Your task to perform on an android device: open app "eBay: The shopping marketplace" Image 0: 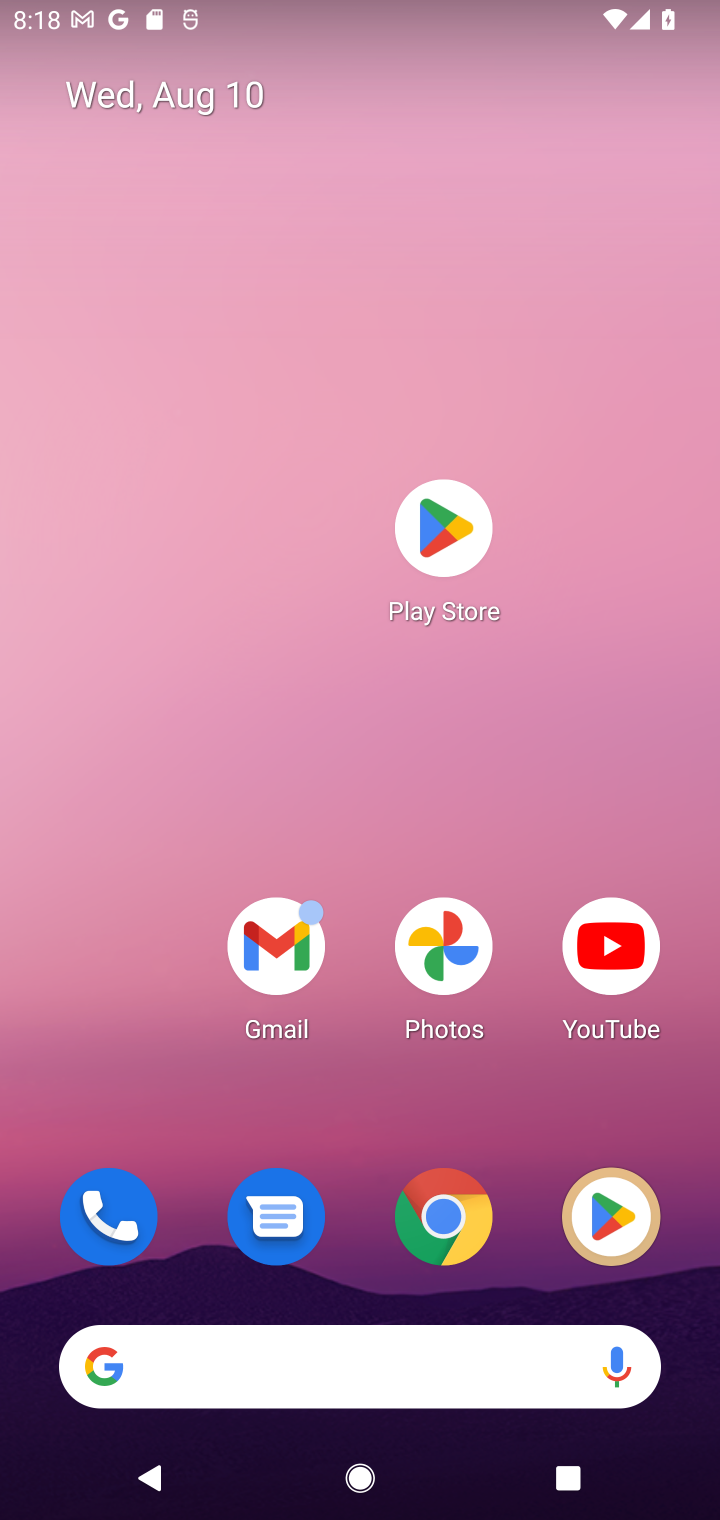
Step 0: press home button
Your task to perform on an android device: open app "eBay: The shopping marketplace" Image 1: 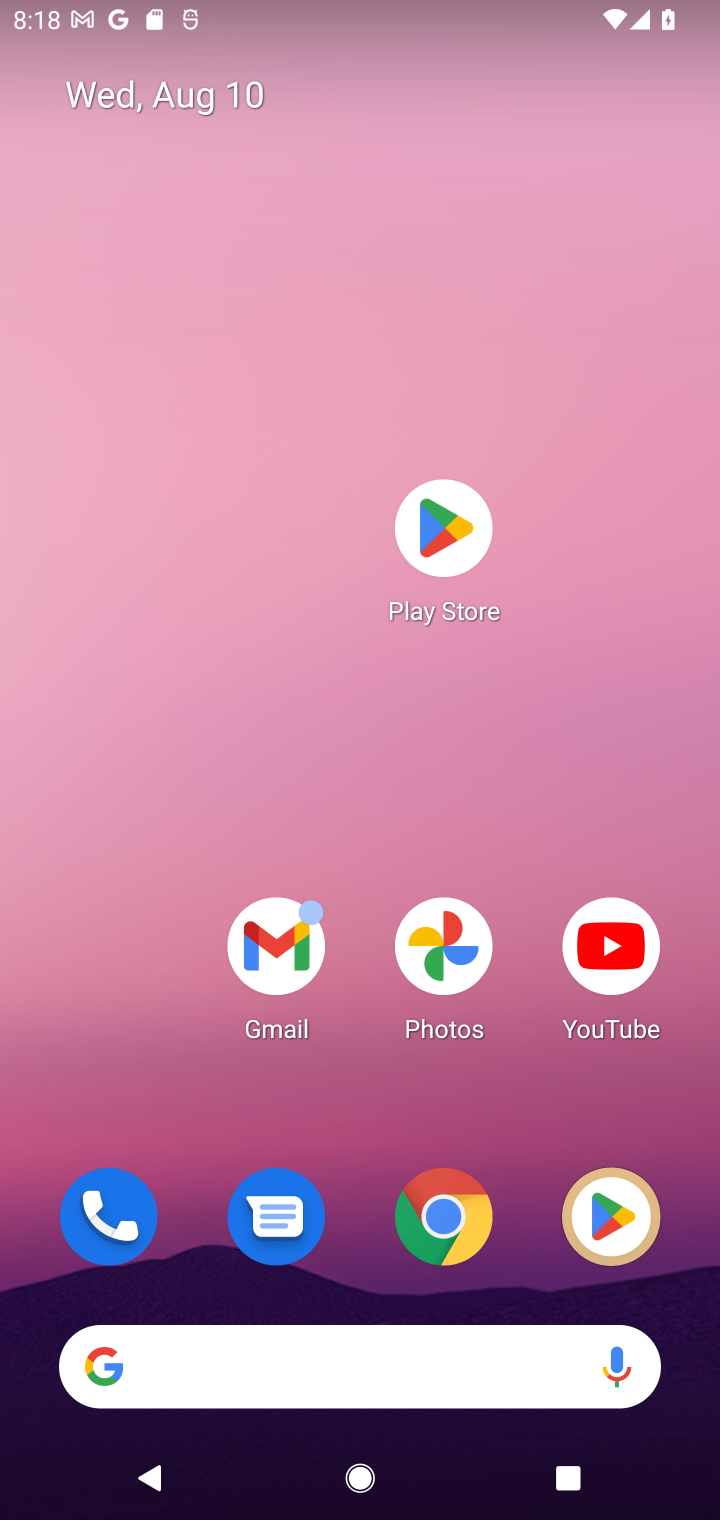
Step 1: click (451, 515)
Your task to perform on an android device: open app "eBay: The shopping marketplace" Image 2: 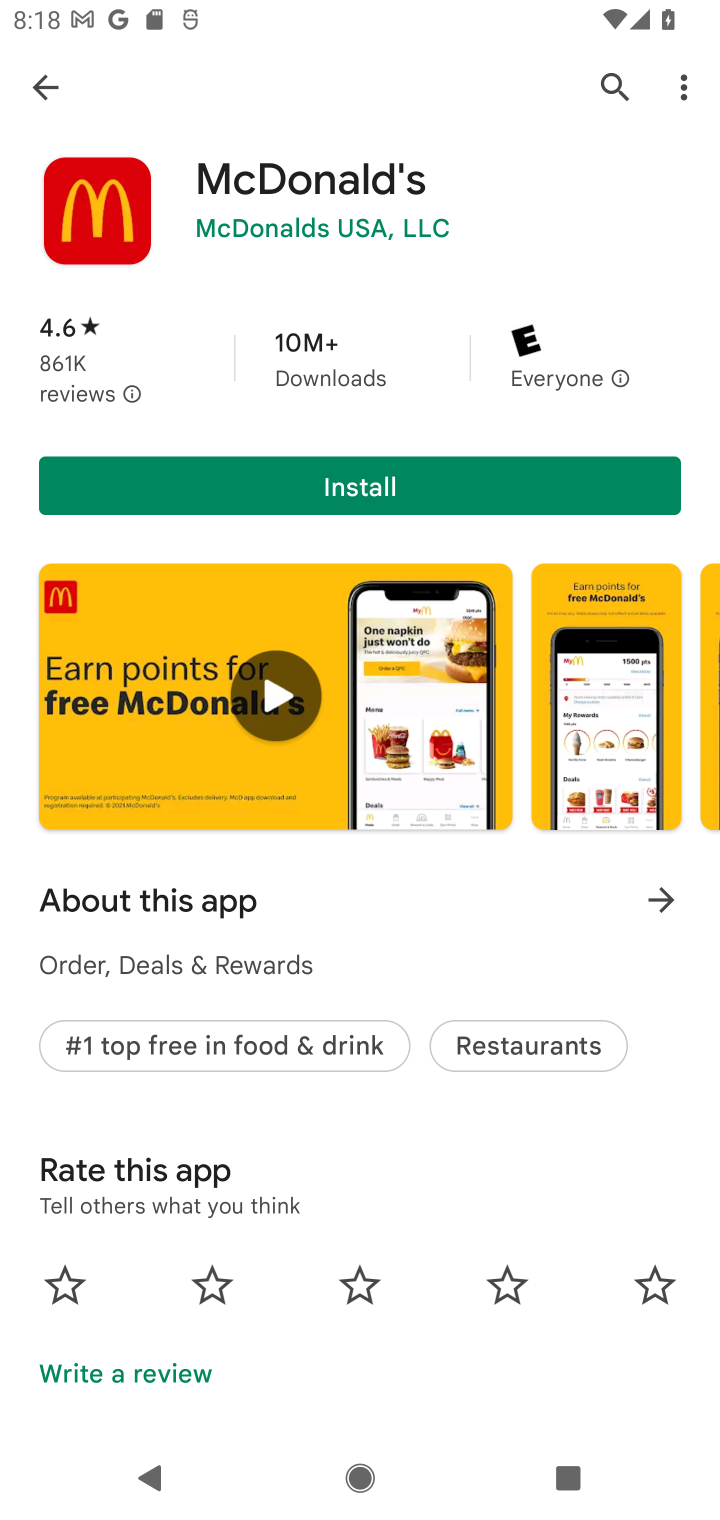
Step 2: click (612, 72)
Your task to perform on an android device: open app "eBay: The shopping marketplace" Image 3: 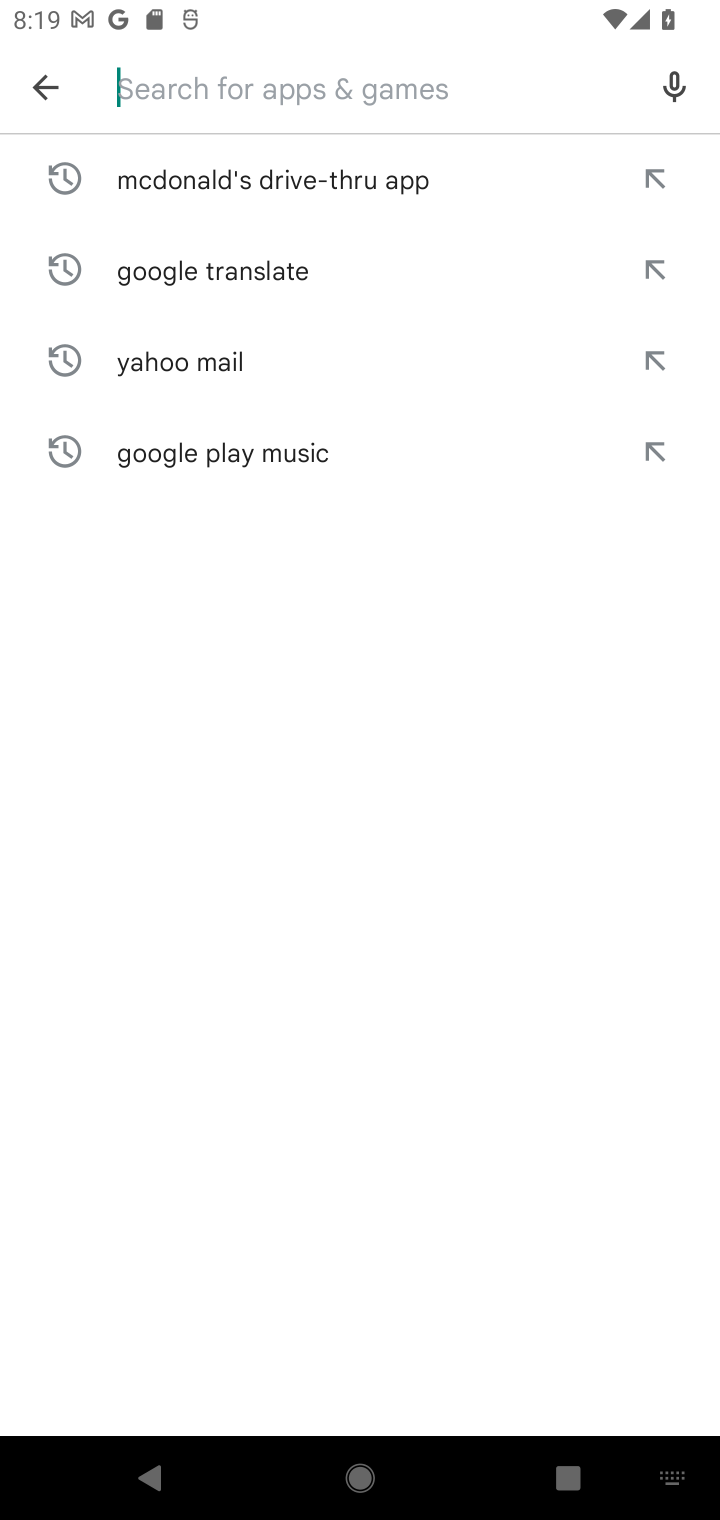
Step 3: type "eBay: The shopping marketplace"
Your task to perform on an android device: open app "eBay: The shopping marketplace" Image 4: 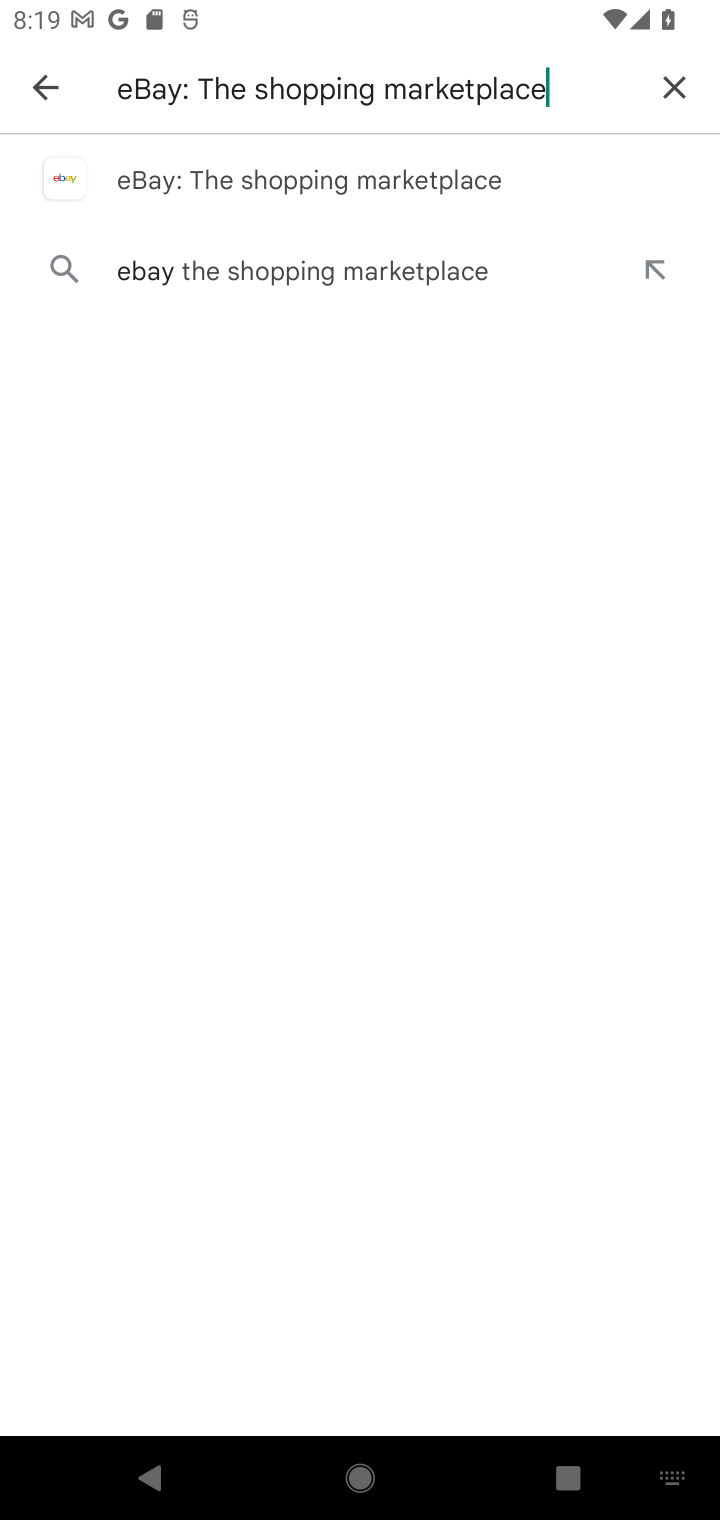
Step 4: click (362, 178)
Your task to perform on an android device: open app "eBay: The shopping marketplace" Image 5: 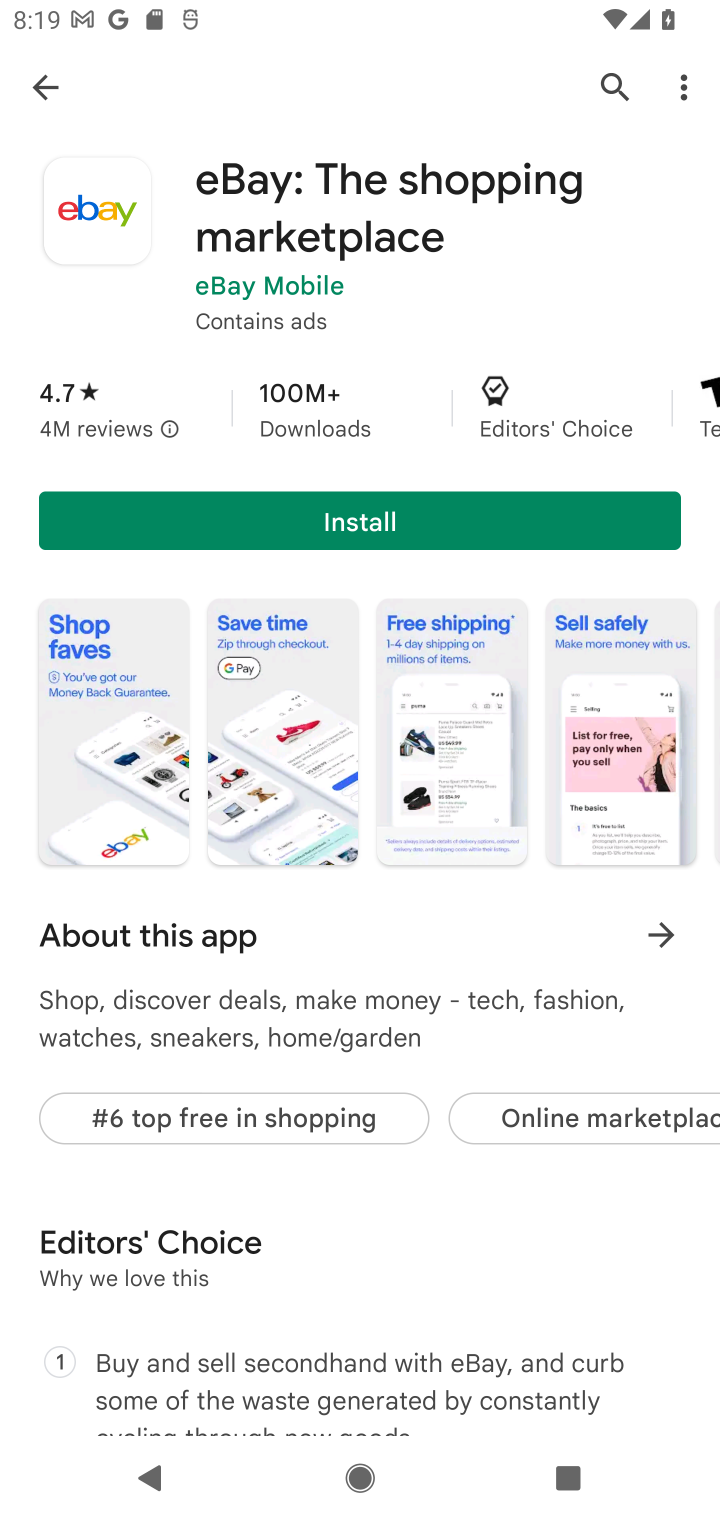
Step 5: task complete